Your task to perform on an android device: turn off smart reply in the gmail app Image 0: 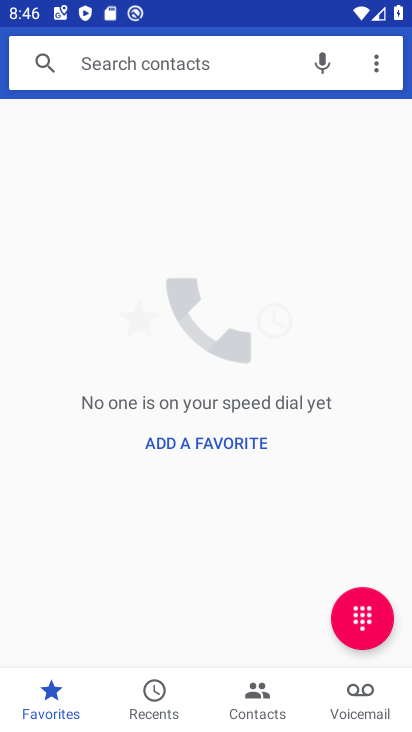
Step 0: press home button
Your task to perform on an android device: turn off smart reply in the gmail app Image 1: 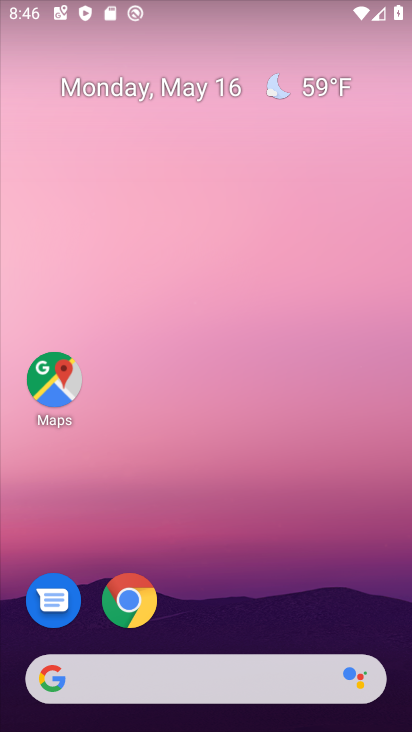
Step 1: drag from (183, 645) to (225, 357)
Your task to perform on an android device: turn off smart reply in the gmail app Image 2: 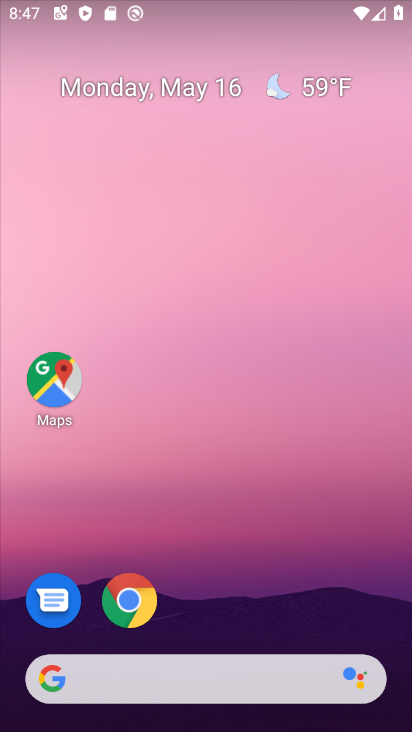
Step 2: drag from (196, 672) to (242, 165)
Your task to perform on an android device: turn off smart reply in the gmail app Image 3: 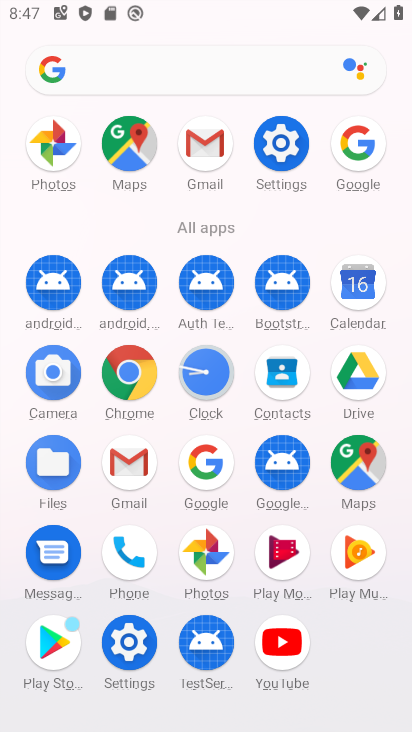
Step 3: click (210, 154)
Your task to perform on an android device: turn off smart reply in the gmail app Image 4: 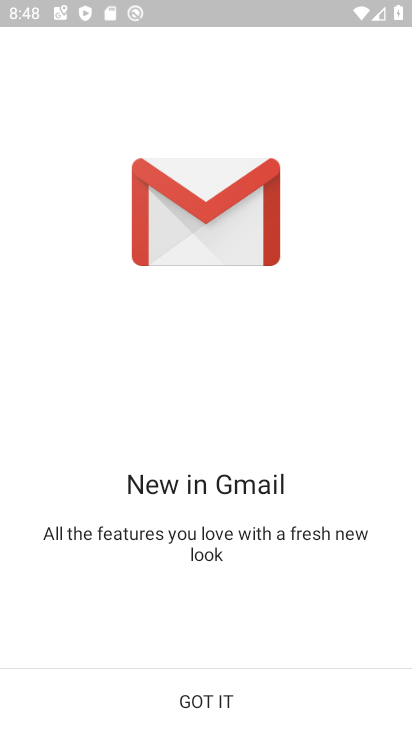
Step 4: click (205, 695)
Your task to perform on an android device: turn off smart reply in the gmail app Image 5: 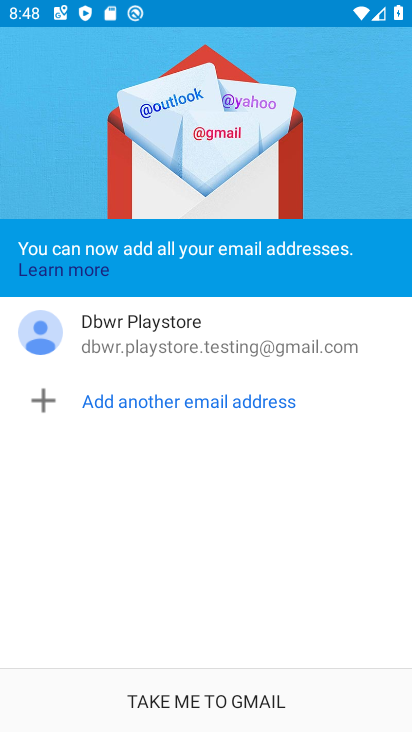
Step 5: click (240, 699)
Your task to perform on an android device: turn off smart reply in the gmail app Image 6: 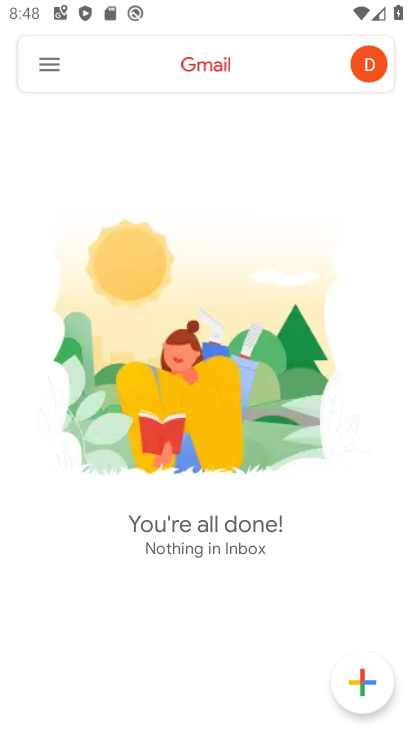
Step 6: click (43, 69)
Your task to perform on an android device: turn off smart reply in the gmail app Image 7: 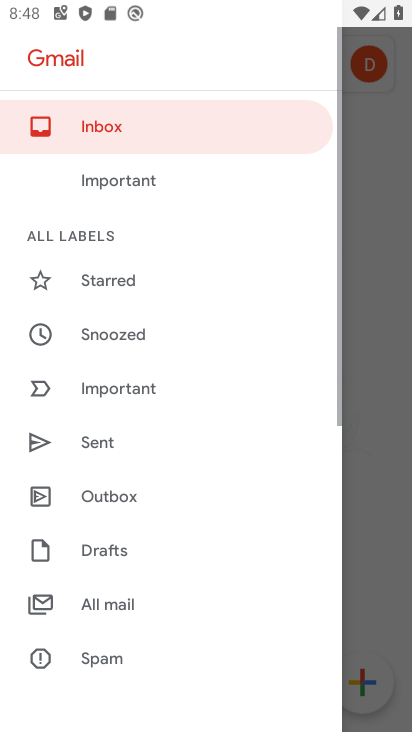
Step 7: drag from (102, 670) to (102, 299)
Your task to perform on an android device: turn off smart reply in the gmail app Image 8: 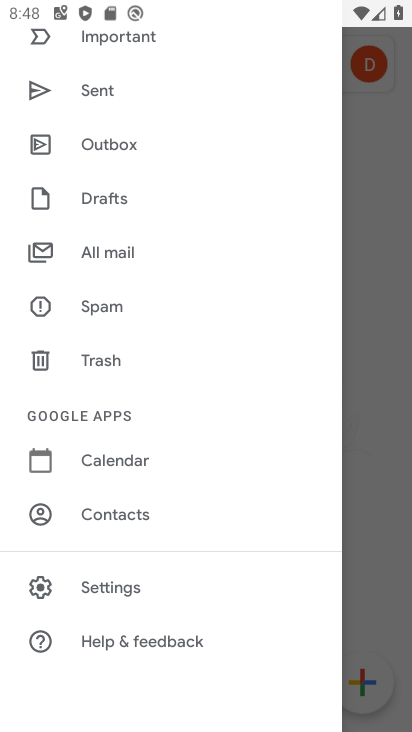
Step 8: click (116, 589)
Your task to perform on an android device: turn off smart reply in the gmail app Image 9: 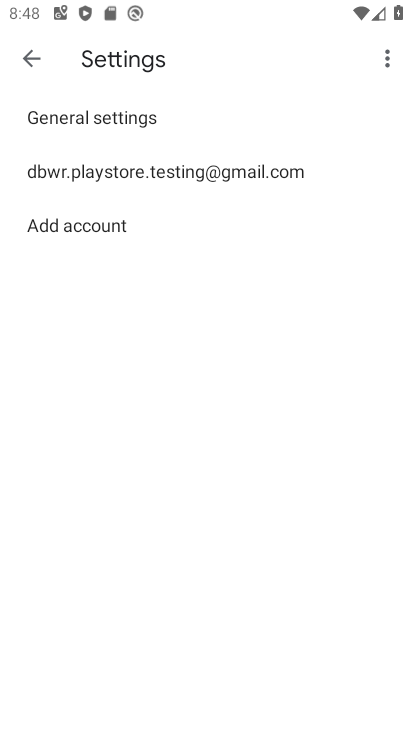
Step 9: click (156, 169)
Your task to perform on an android device: turn off smart reply in the gmail app Image 10: 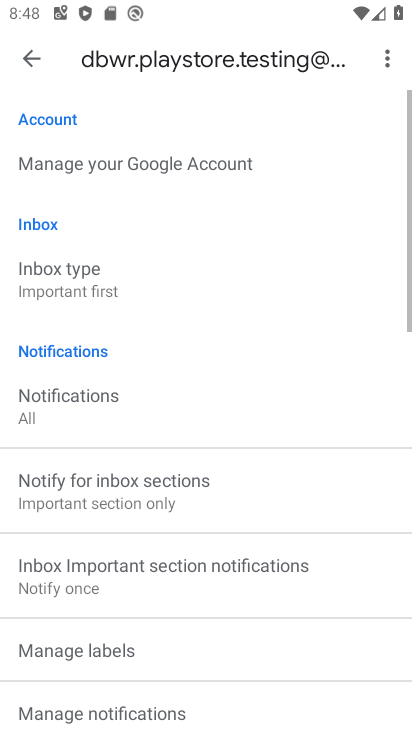
Step 10: drag from (214, 650) to (275, 213)
Your task to perform on an android device: turn off smart reply in the gmail app Image 11: 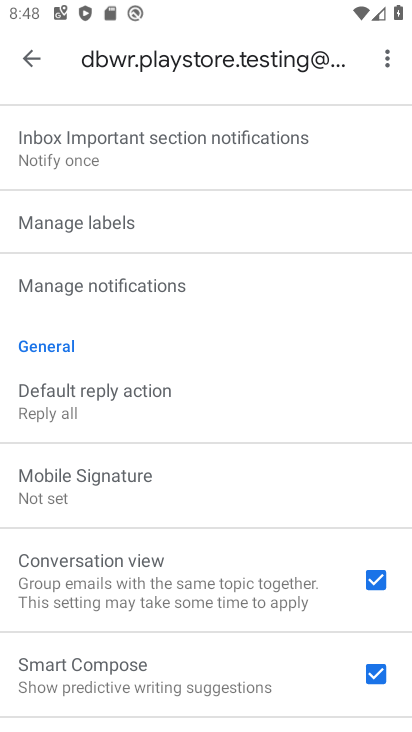
Step 11: drag from (235, 669) to (235, 355)
Your task to perform on an android device: turn off smart reply in the gmail app Image 12: 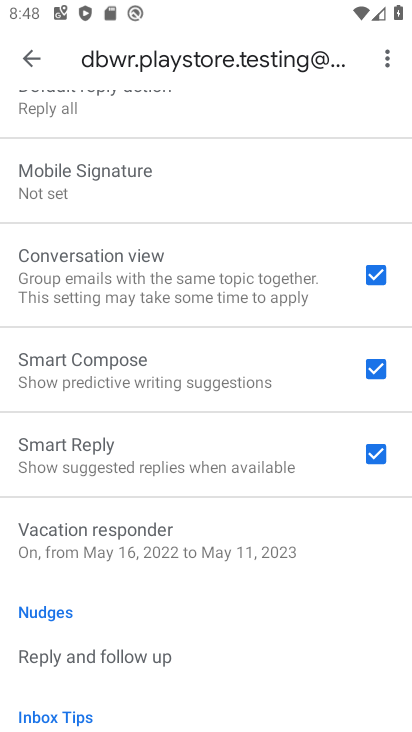
Step 12: click (375, 447)
Your task to perform on an android device: turn off smart reply in the gmail app Image 13: 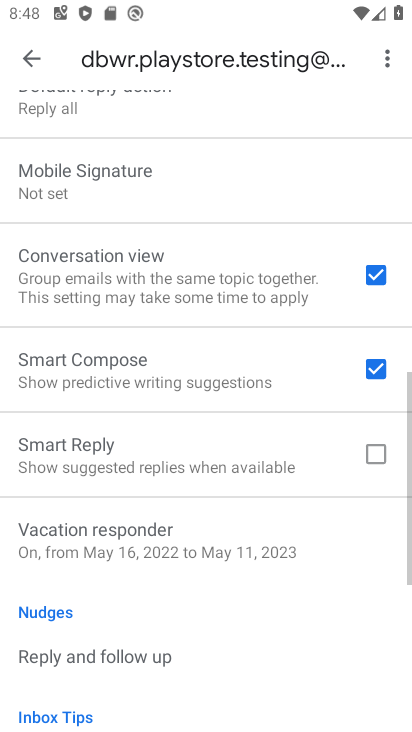
Step 13: task complete